Your task to perform on an android device: turn on improve location accuracy Image 0: 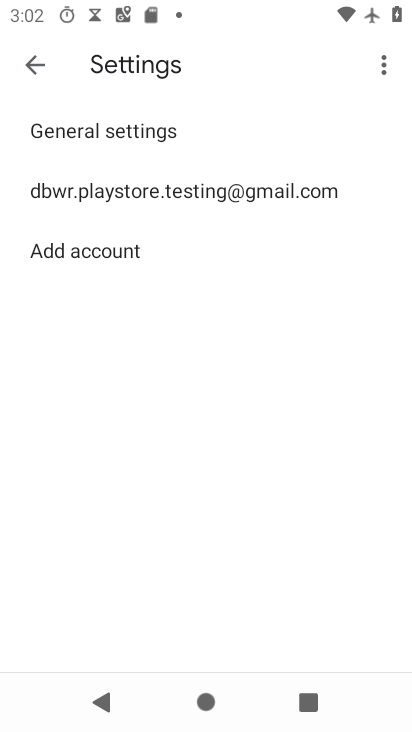
Step 0: press home button
Your task to perform on an android device: turn on improve location accuracy Image 1: 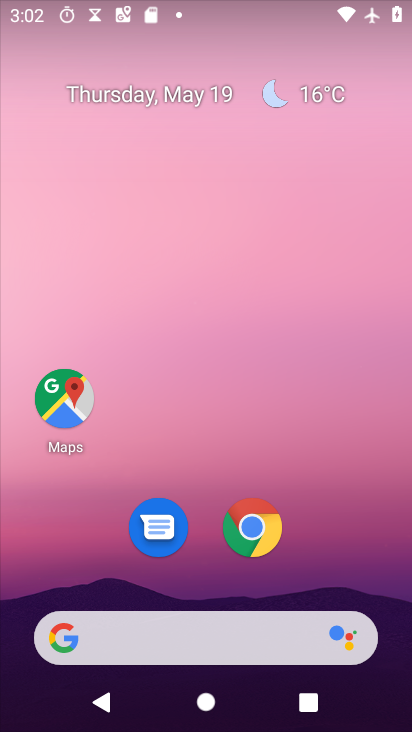
Step 1: drag from (341, 516) to (233, 56)
Your task to perform on an android device: turn on improve location accuracy Image 2: 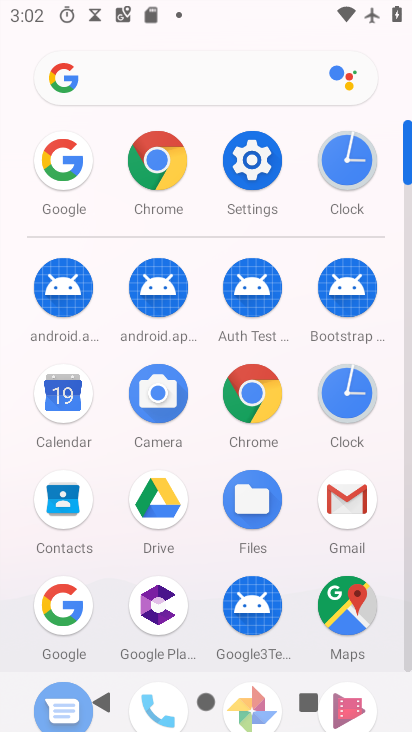
Step 2: click (259, 178)
Your task to perform on an android device: turn on improve location accuracy Image 3: 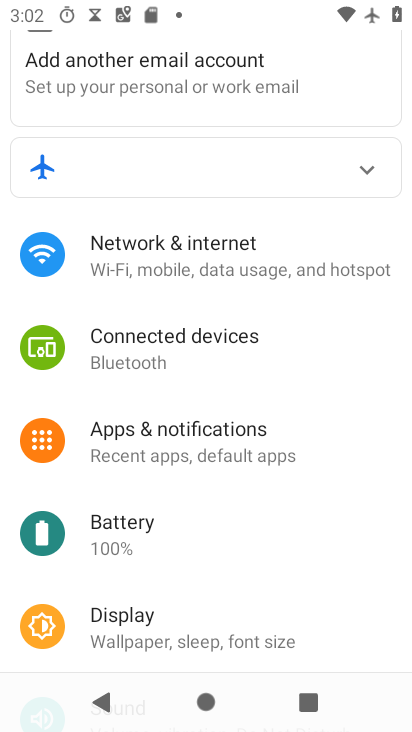
Step 3: drag from (235, 565) to (262, 49)
Your task to perform on an android device: turn on improve location accuracy Image 4: 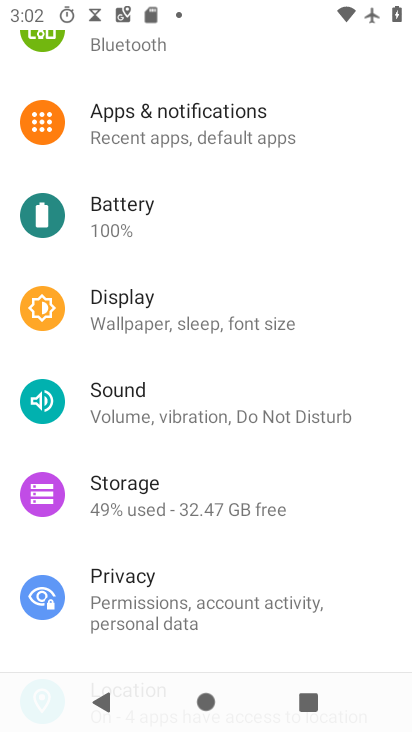
Step 4: drag from (248, 561) to (243, 0)
Your task to perform on an android device: turn on improve location accuracy Image 5: 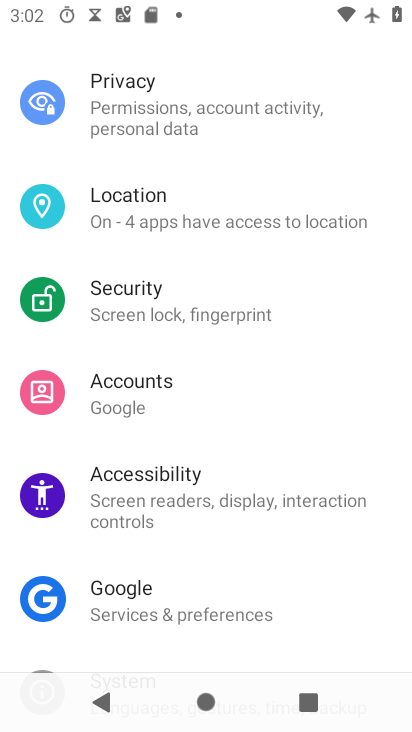
Step 5: click (217, 247)
Your task to perform on an android device: turn on improve location accuracy Image 6: 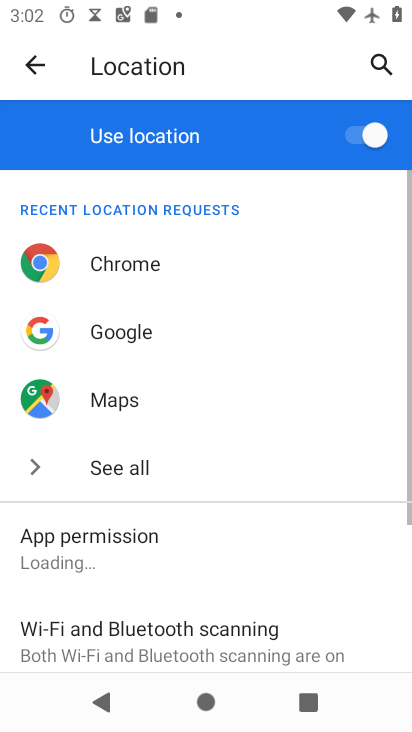
Step 6: drag from (260, 590) to (245, 85)
Your task to perform on an android device: turn on improve location accuracy Image 7: 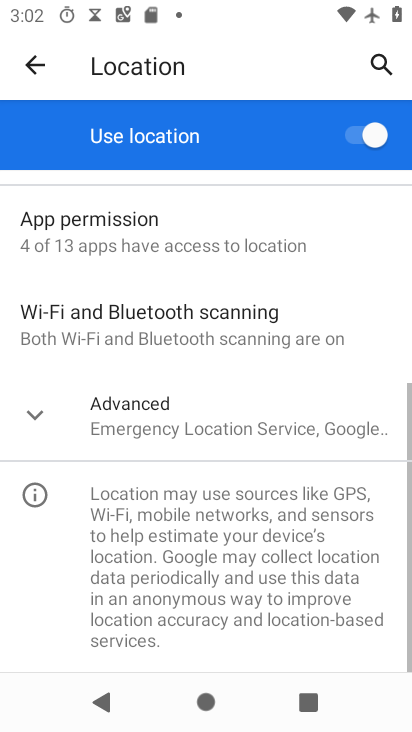
Step 7: click (214, 400)
Your task to perform on an android device: turn on improve location accuracy Image 8: 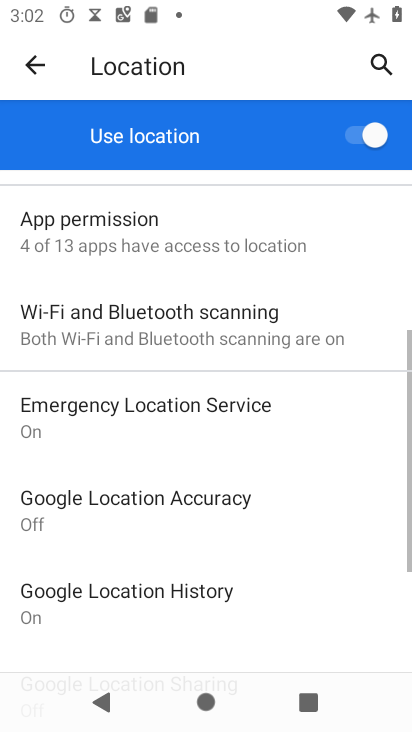
Step 8: click (223, 514)
Your task to perform on an android device: turn on improve location accuracy Image 9: 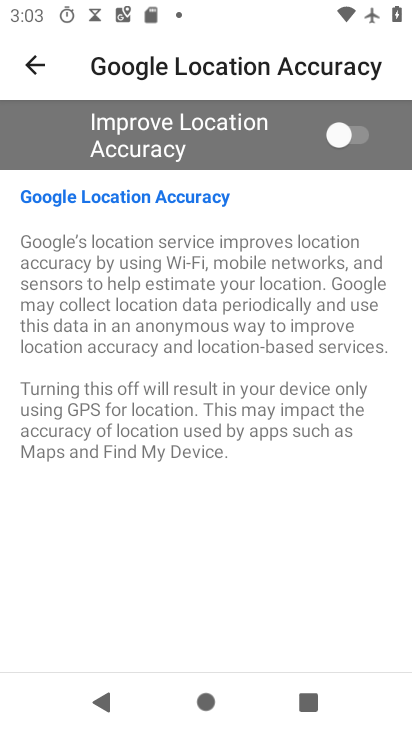
Step 9: click (355, 129)
Your task to perform on an android device: turn on improve location accuracy Image 10: 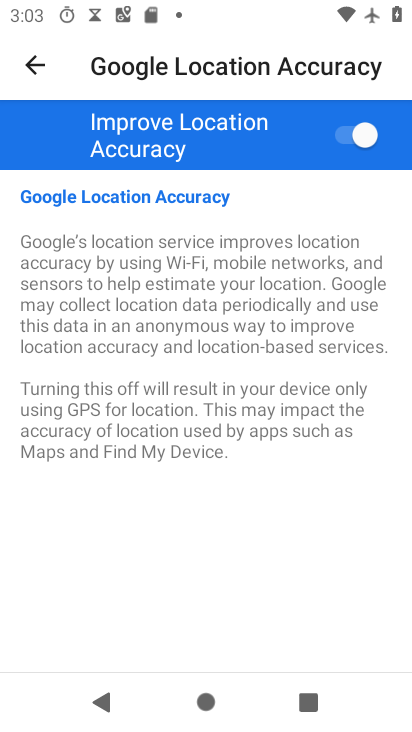
Step 10: task complete